Your task to perform on an android device: allow cookies in the chrome app Image 0: 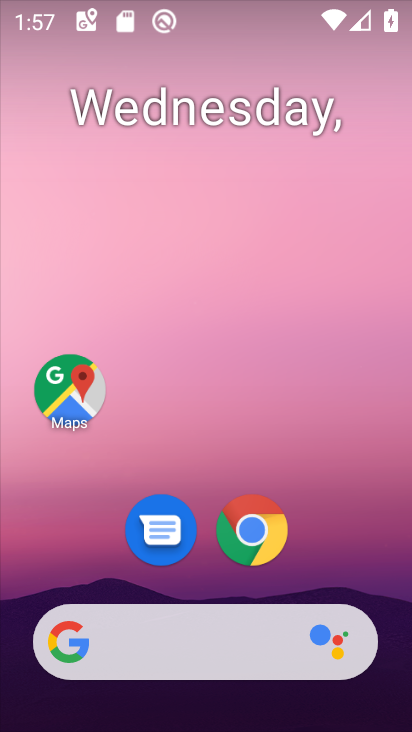
Step 0: click (259, 531)
Your task to perform on an android device: allow cookies in the chrome app Image 1: 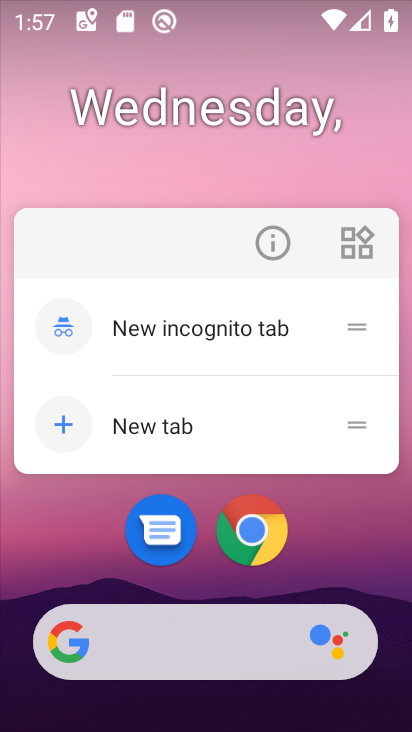
Step 1: click (258, 529)
Your task to perform on an android device: allow cookies in the chrome app Image 2: 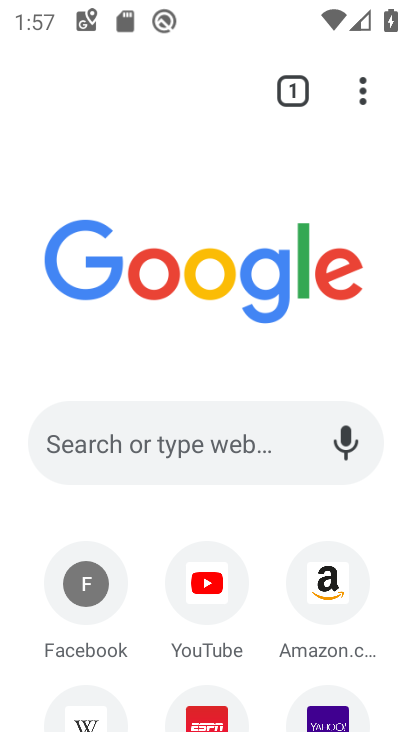
Step 2: click (262, 515)
Your task to perform on an android device: allow cookies in the chrome app Image 3: 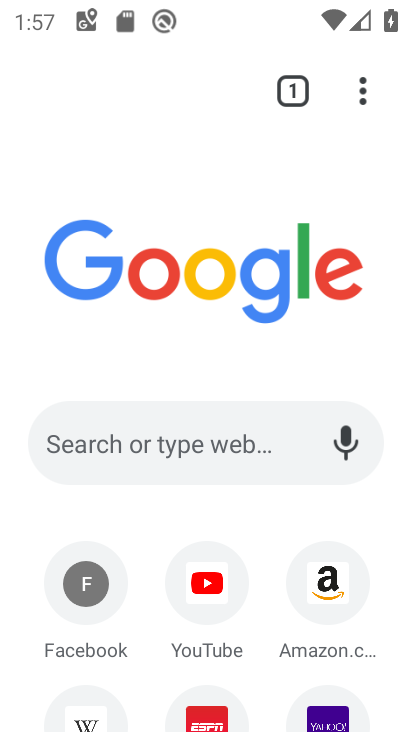
Step 3: click (361, 97)
Your task to perform on an android device: allow cookies in the chrome app Image 4: 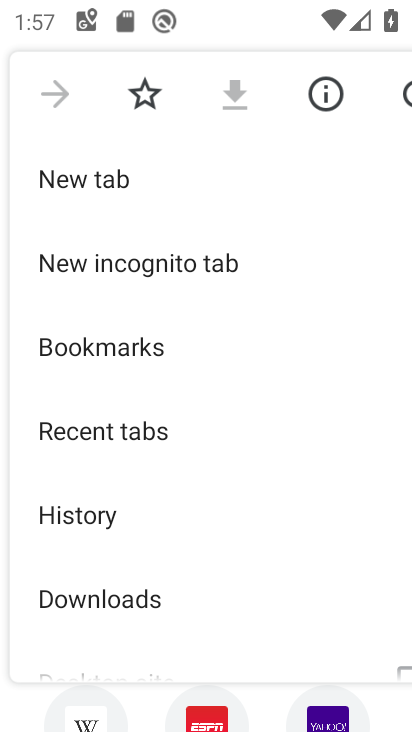
Step 4: drag from (156, 569) to (168, 236)
Your task to perform on an android device: allow cookies in the chrome app Image 5: 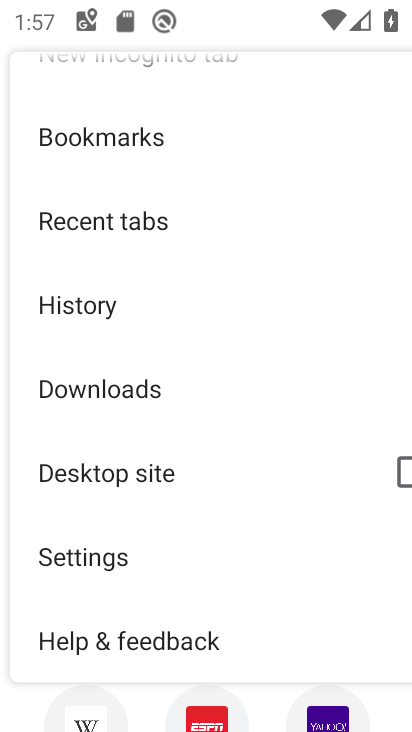
Step 5: click (166, 549)
Your task to perform on an android device: allow cookies in the chrome app Image 6: 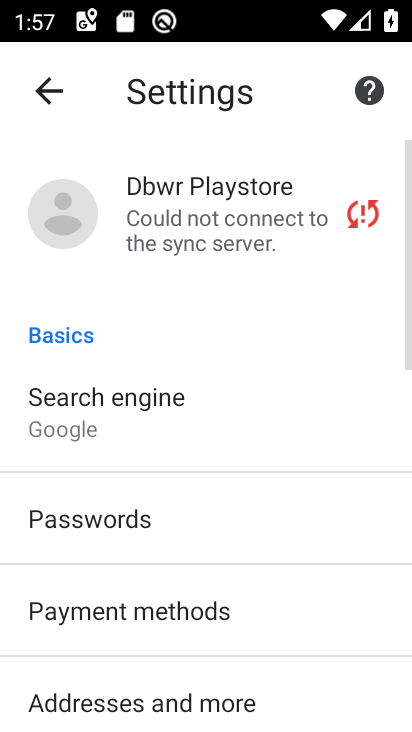
Step 6: drag from (150, 512) to (152, 192)
Your task to perform on an android device: allow cookies in the chrome app Image 7: 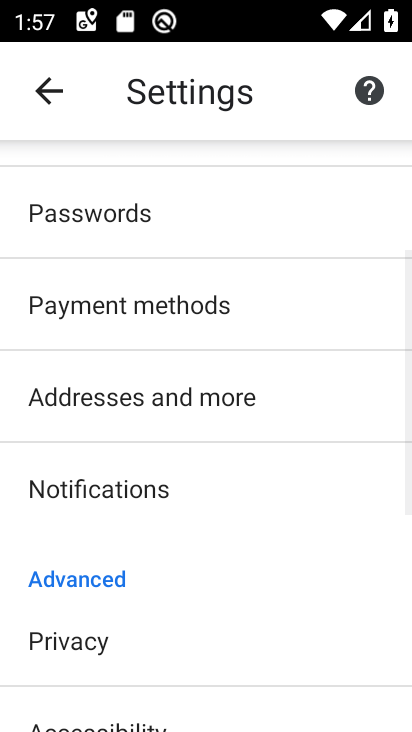
Step 7: drag from (163, 602) to (163, 316)
Your task to perform on an android device: allow cookies in the chrome app Image 8: 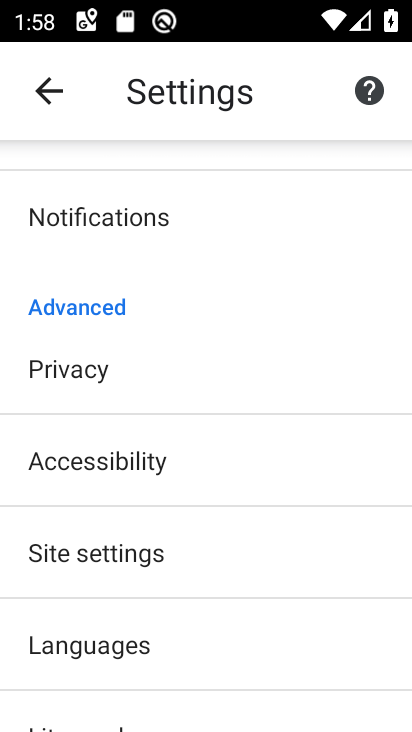
Step 8: click (119, 562)
Your task to perform on an android device: allow cookies in the chrome app Image 9: 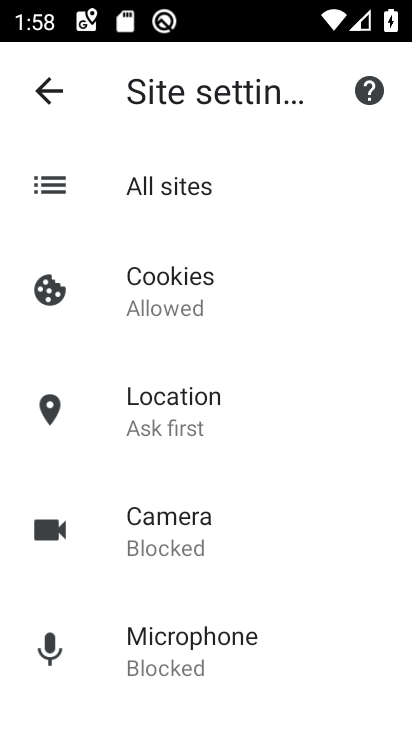
Step 9: click (191, 224)
Your task to perform on an android device: allow cookies in the chrome app Image 10: 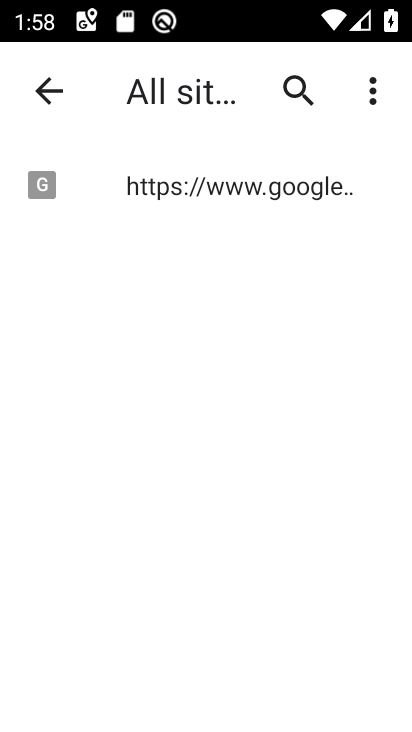
Step 10: click (22, 84)
Your task to perform on an android device: allow cookies in the chrome app Image 11: 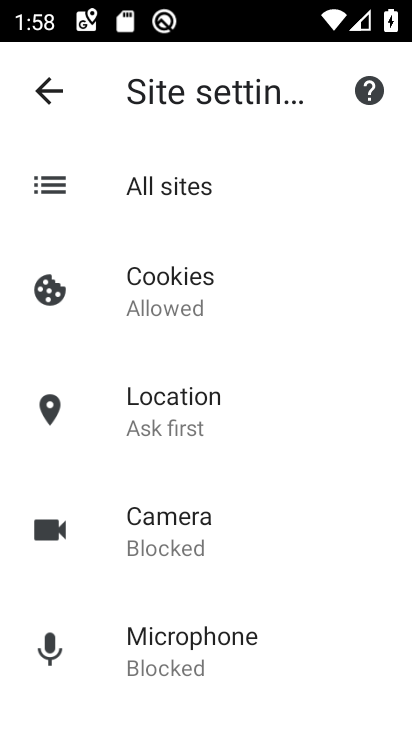
Step 11: click (192, 274)
Your task to perform on an android device: allow cookies in the chrome app Image 12: 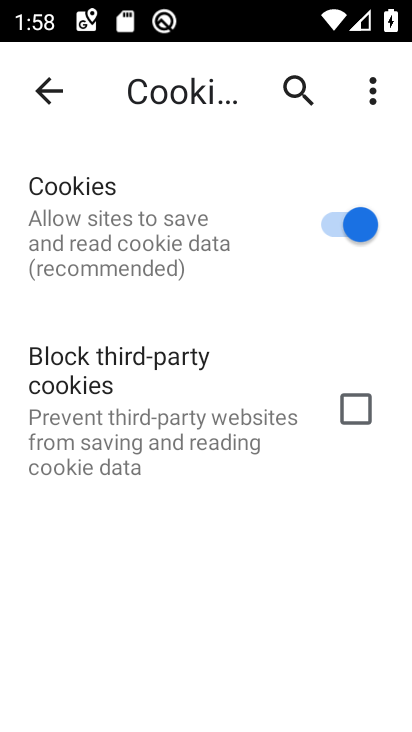
Step 12: task complete